Your task to perform on an android device: Search for panasonic triple a on bestbuy.com, select the first entry, add it to the cart, then select checkout. Image 0: 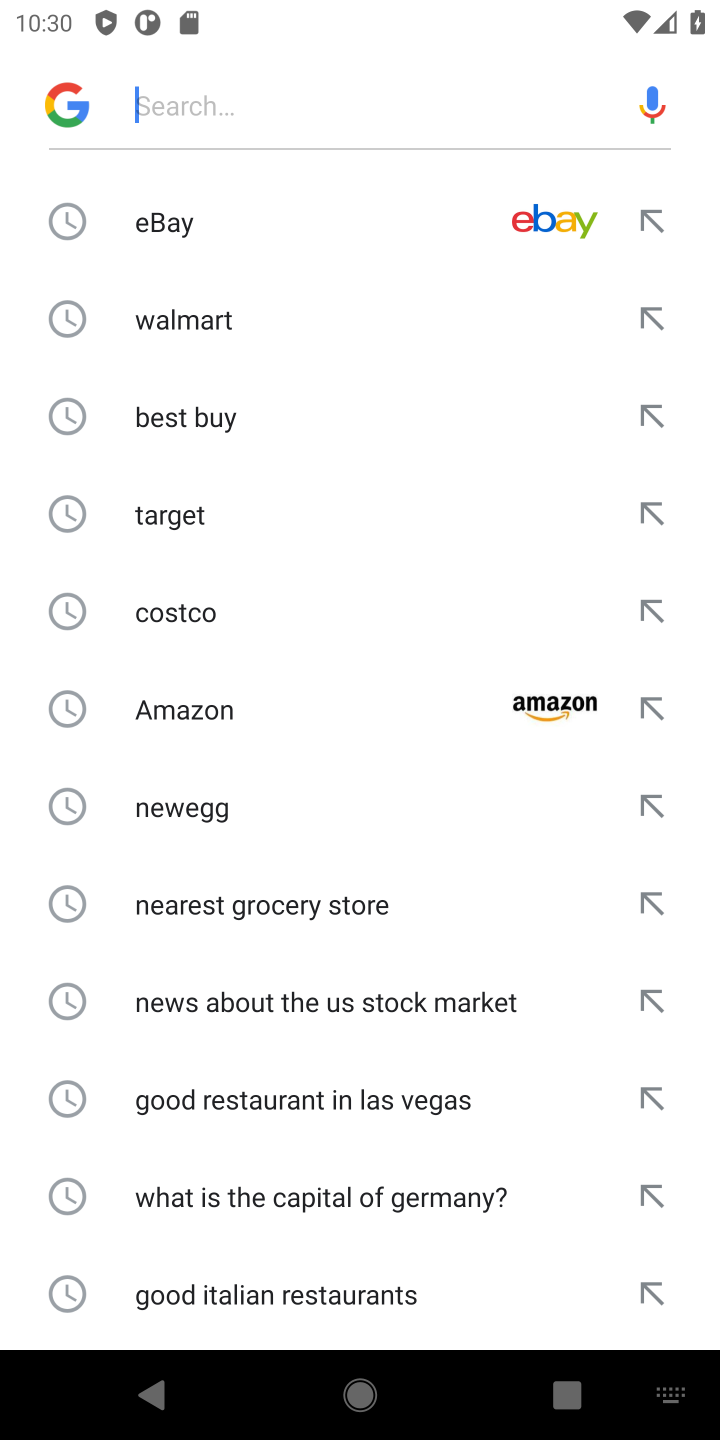
Step 0: press home button
Your task to perform on an android device: Search for panasonic triple a on bestbuy.com, select the first entry, add it to the cart, then select checkout. Image 1: 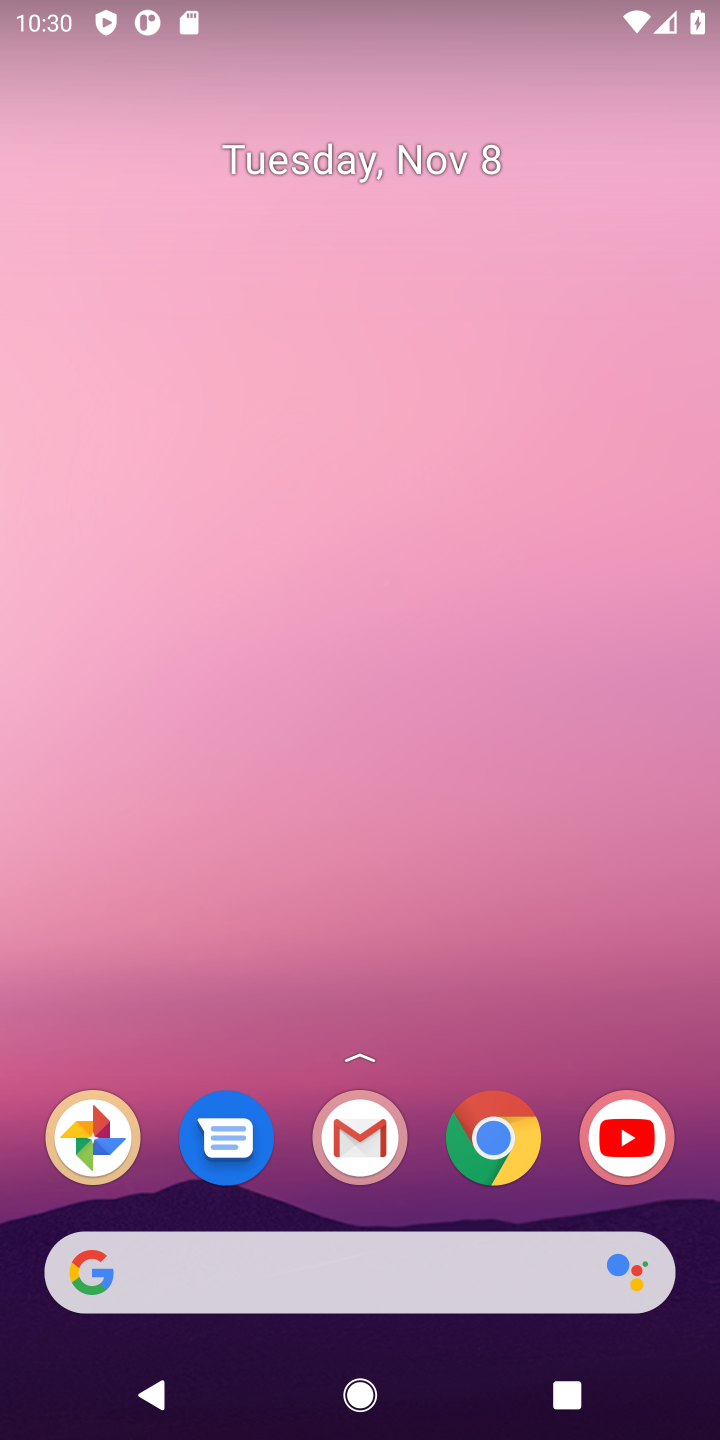
Step 1: click (509, 1142)
Your task to perform on an android device: Search for panasonic triple a on bestbuy.com, select the first entry, add it to the cart, then select checkout. Image 2: 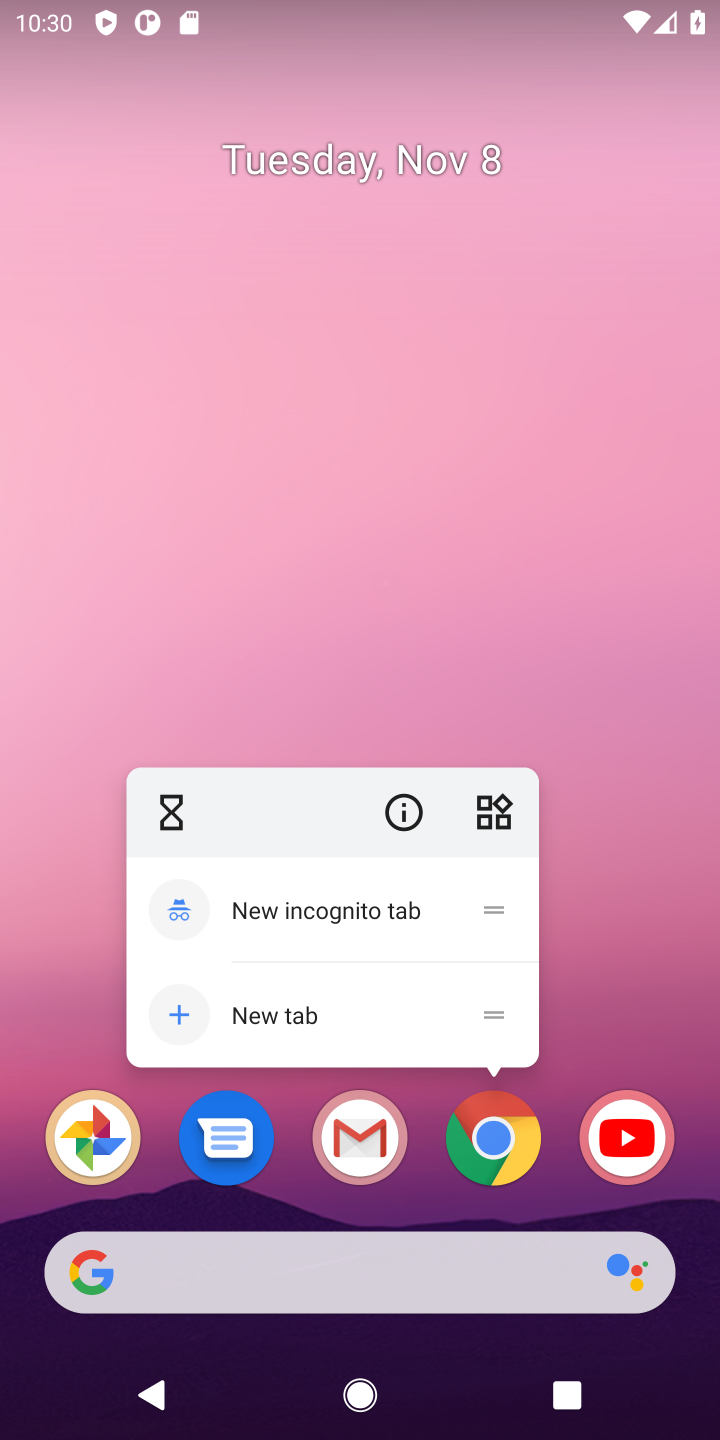
Step 2: click (479, 1128)
Your task to perform on an android device: Search for panasonic triple a on bestbuy.com, select the first entry, add it to the cart, then select checkout. Image 3: 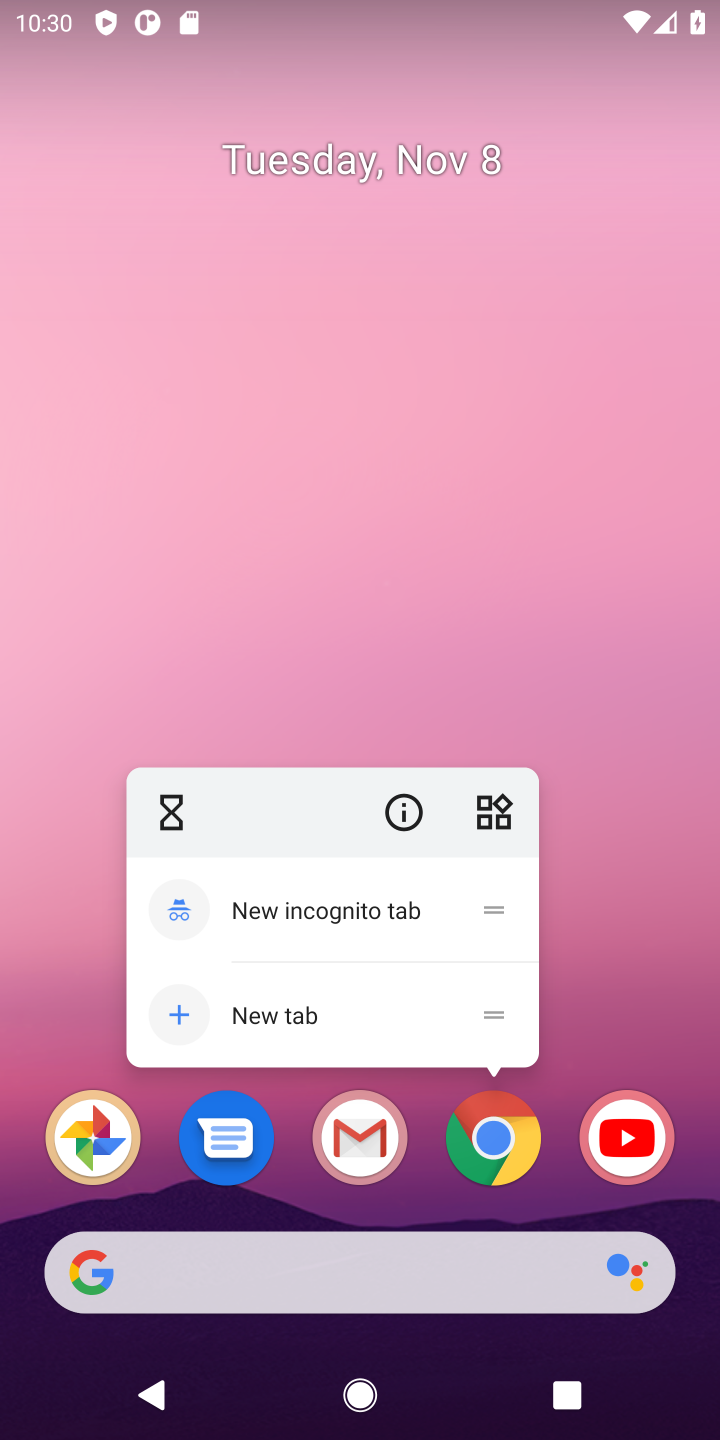
Step 3: click (475, 1128)
Your task to perform on an android device: Search for panasonic triple a on bestbuy.com, select the first entry, add it to the cart, then select checkout. Image 4: 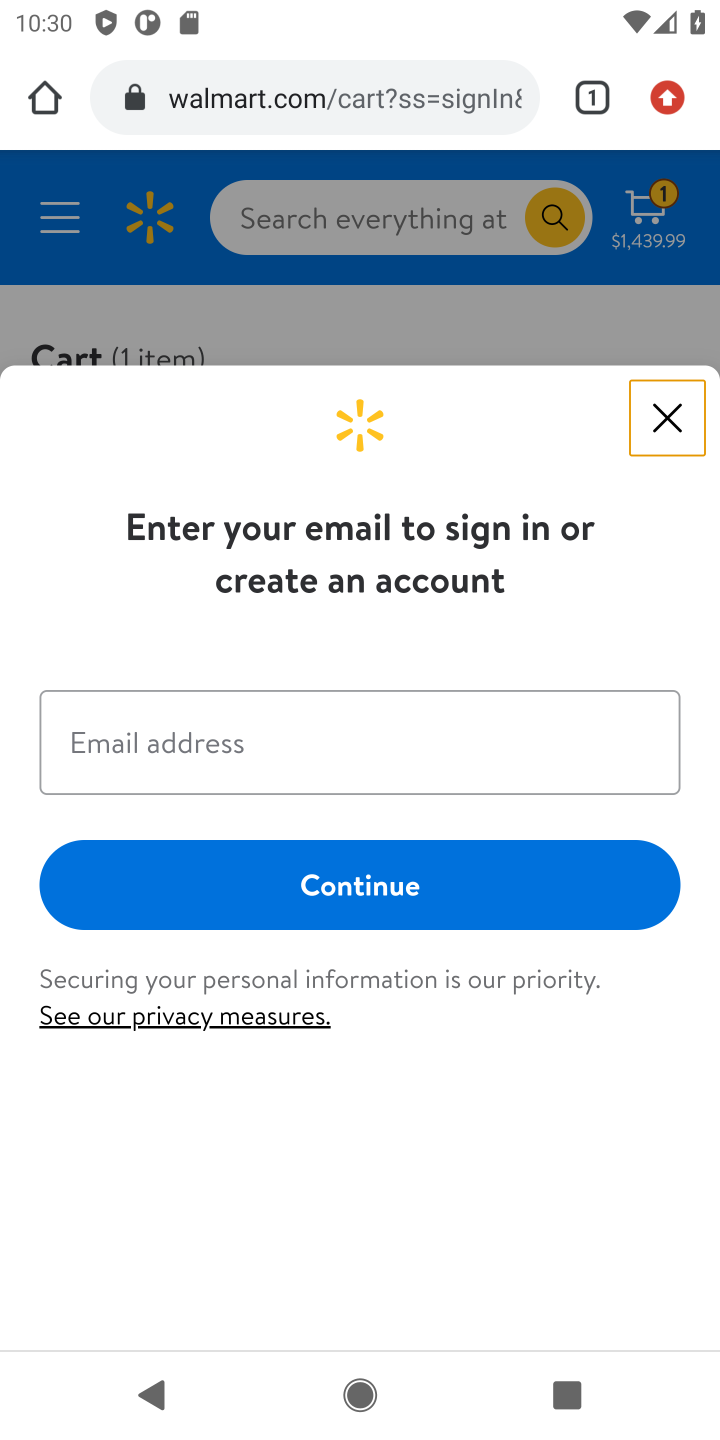
Step 4: click (453, 82)
Your task to perform on an android device: Search for panasonic triple a on bestbuy.com, select the first entry, add it to the cart, then select checkout. Image 5: 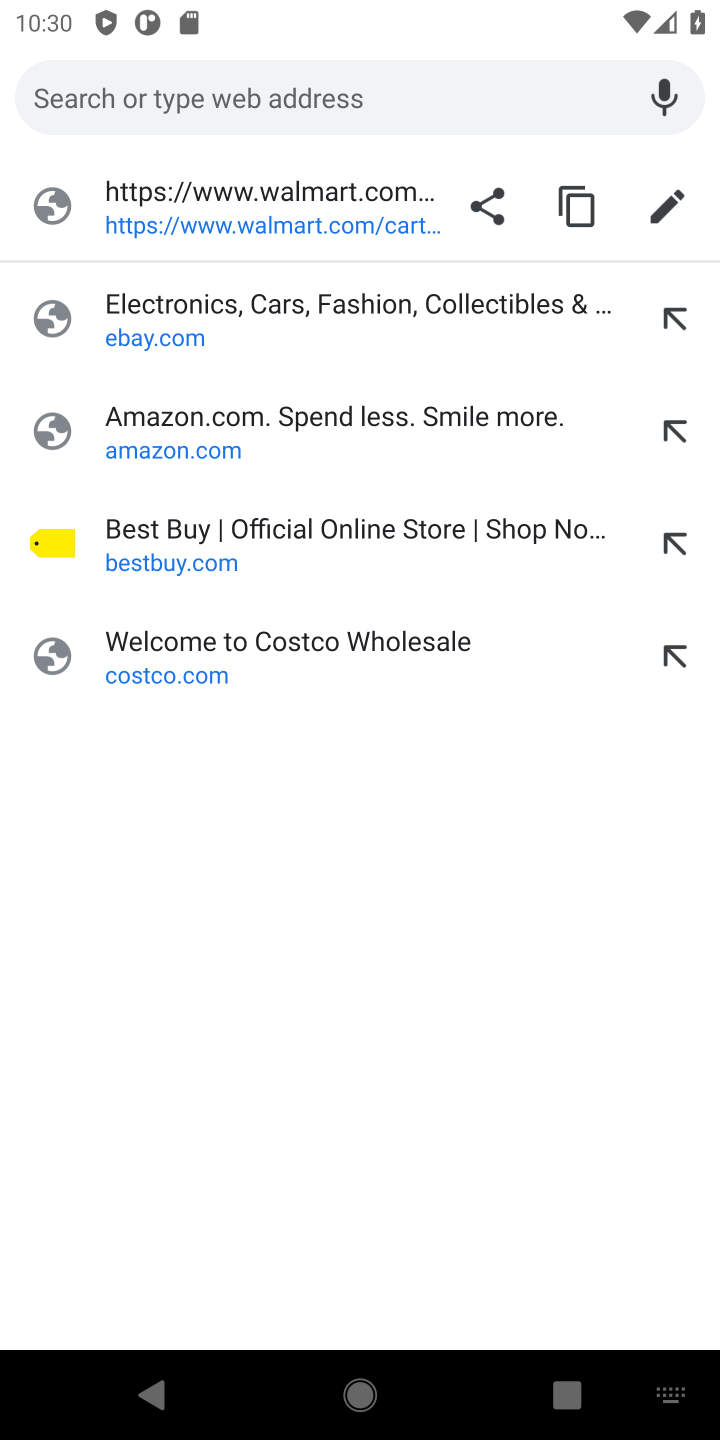
Step 5: click (186, 552)
Your task to perform on an android device: Search for panasonic triple a on bestbuy.com, select the first entry, add it to the cart, then select checkout. Image 6: 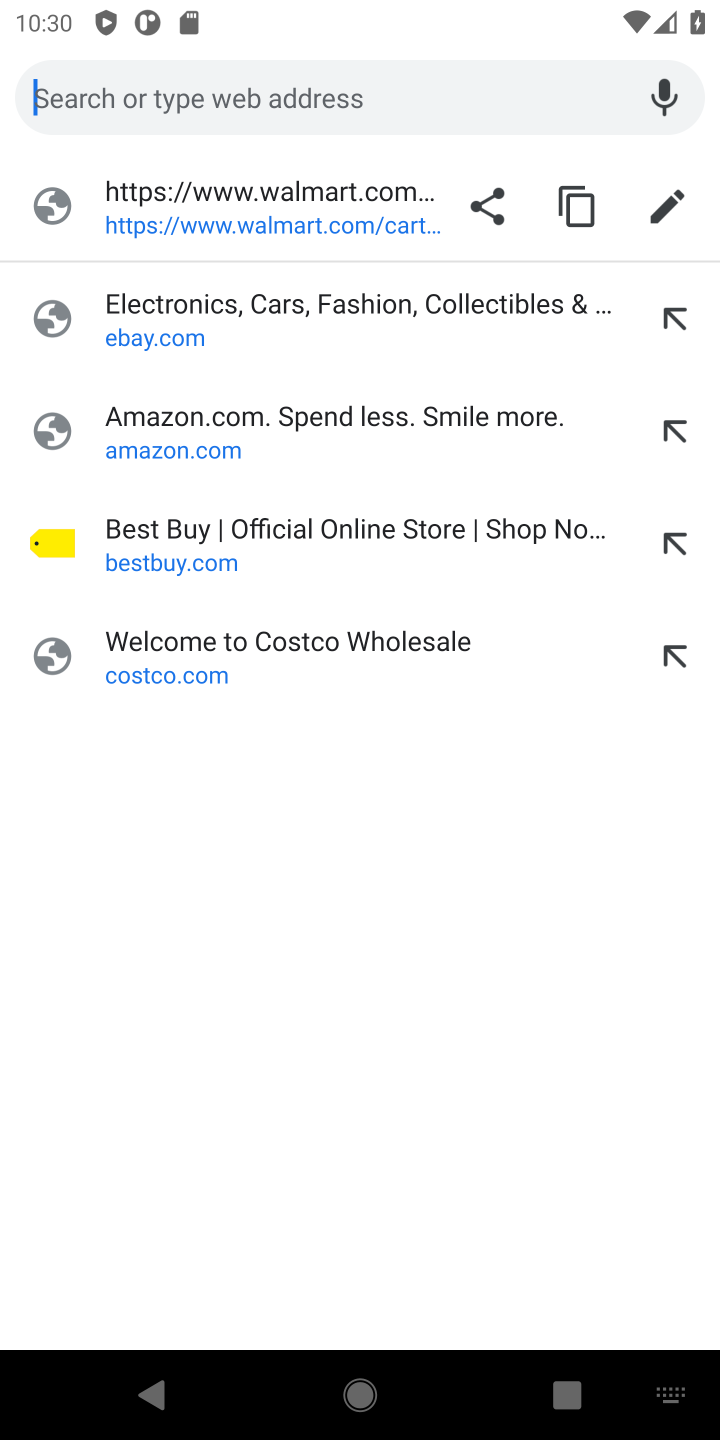
Step 6: click (141, 553)
Your task to perform on an android device: Search for panasonic triple a on bestbuy.com, select the first entry, add it to the cart, then select checkout. Image 7: 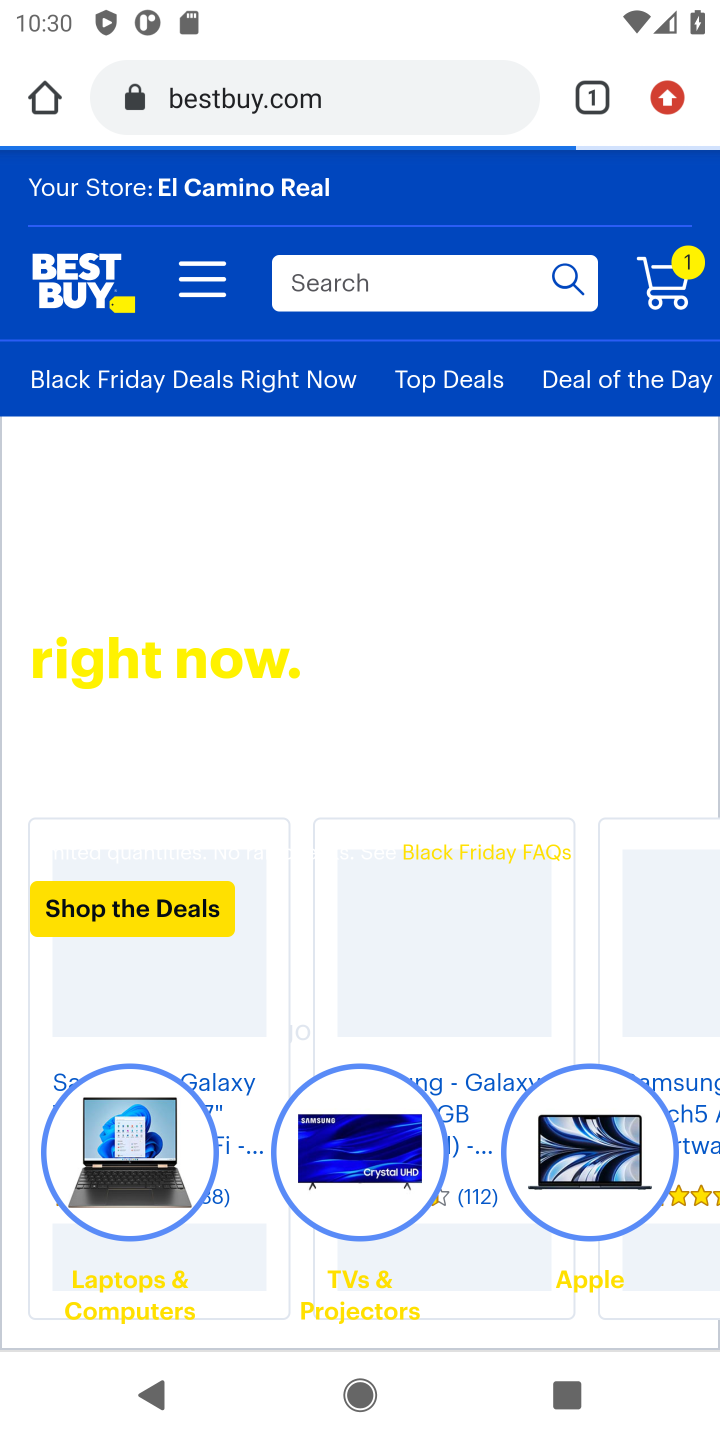
Step 7: click (437, 271)
Your task to perform on an android device: Search for panasonic triple a on bestbuy.com, select the first entry, add it to the cart, then select checkout. Image 8: 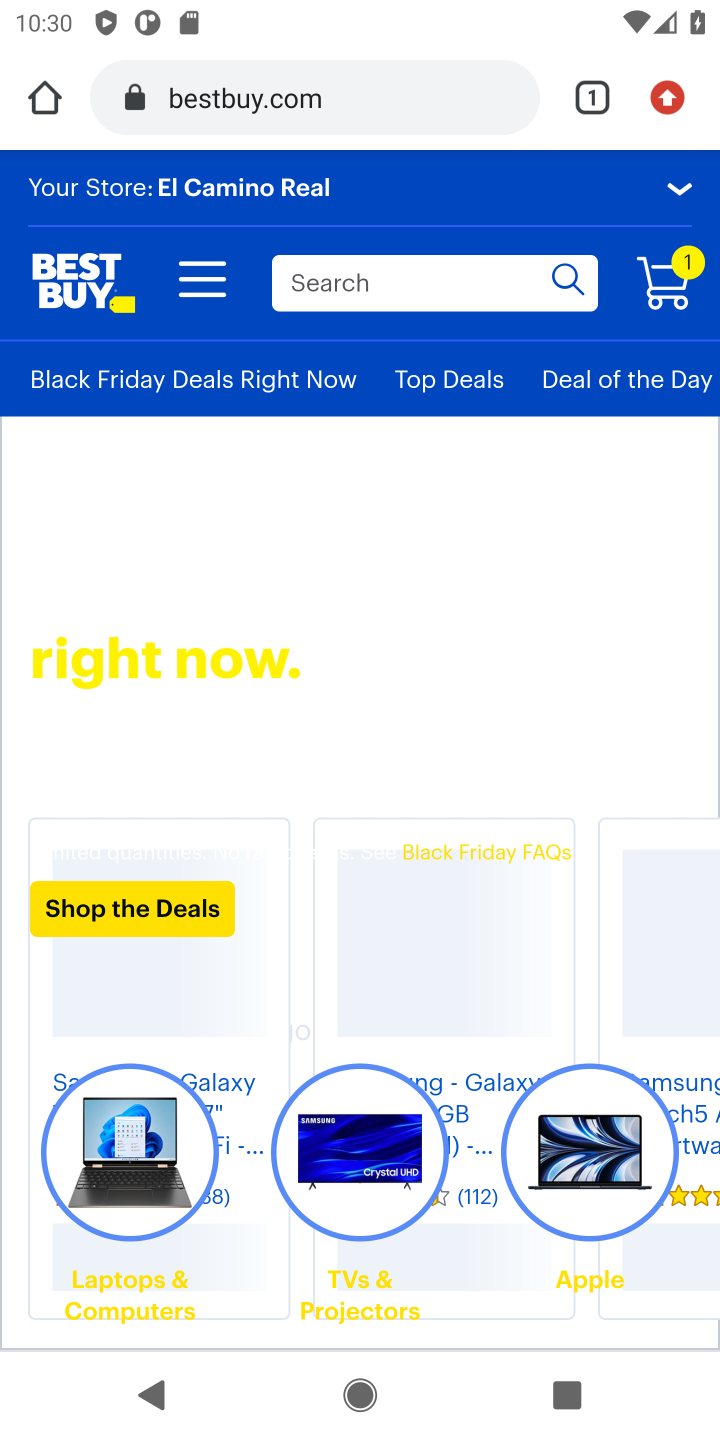
Step 8: click (429, 277)
Your task to perform on an android device: Search for panasonic triple a on bestbuy.com, select the first entry, add it to the cart, then select checkout. Image 9: 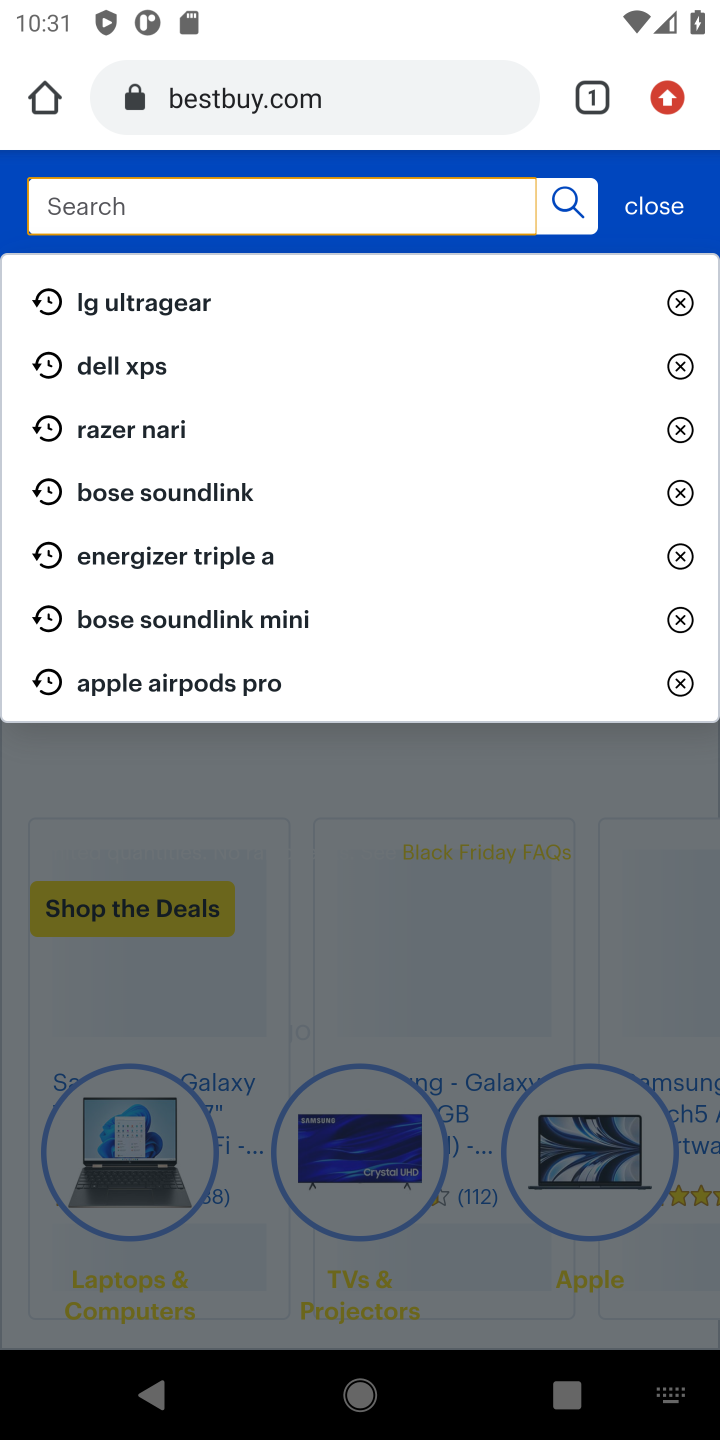
Step 9: type "panasonic triple a"
Your task to perform on an android device: Search for panasonic triple a on bestbuy.com, select the first entry, add it to the cart, then select checkout. Image 10: 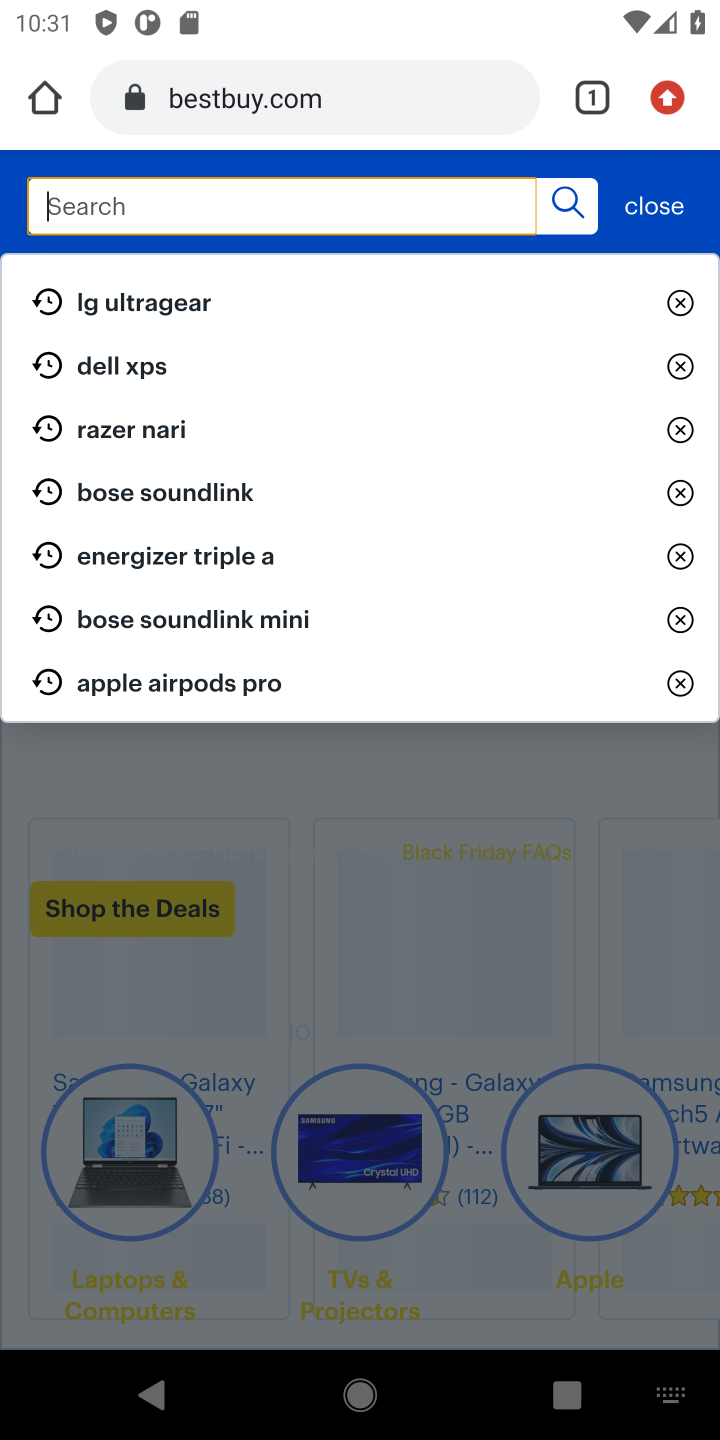
Step 10: press enter
Your task to perform on an android device: Search for panasonic triple a on bestbuy.com, select the first entry, add it to the cart, then select checkout. Image 11: 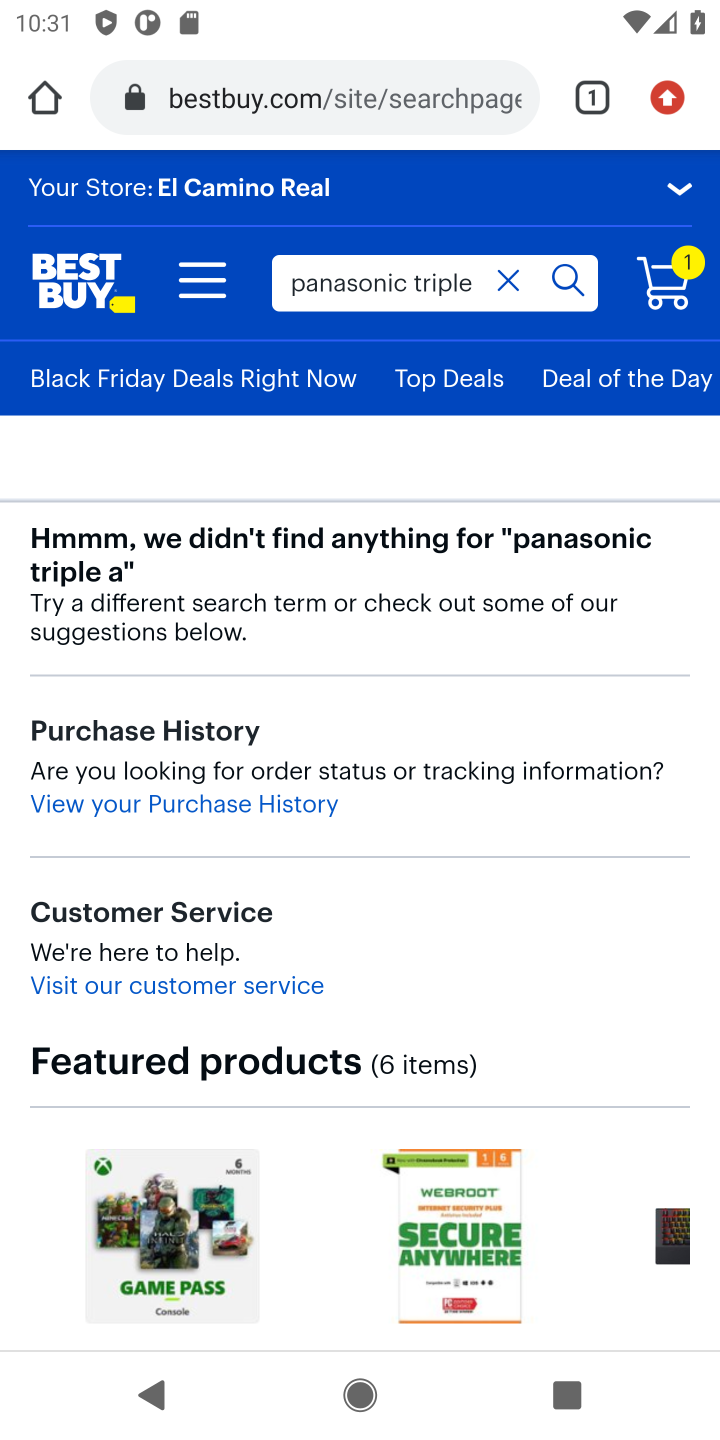
Step 11: drag from (307, 1228) to (416, 1322)
Your task to perform on an android device: Search for panasonic triple a on bestbuy.com, select the first entry, add it to the cart, then select checkout. Image 12: 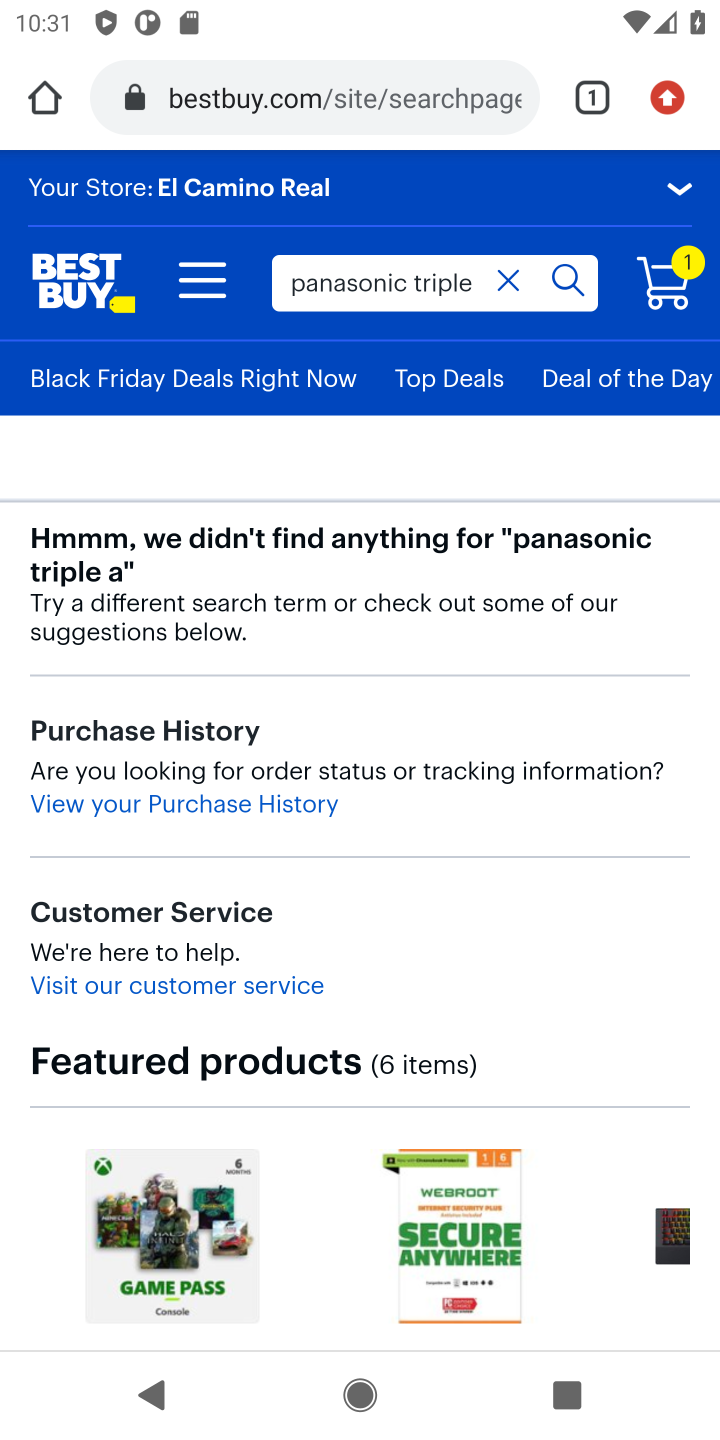
Step 12: click (461, 273)
Your task to perform on an android device: Search for panasonic triple a on bestbuy.com, select the first entry, add it to the cart, then select checkout. Image 13: 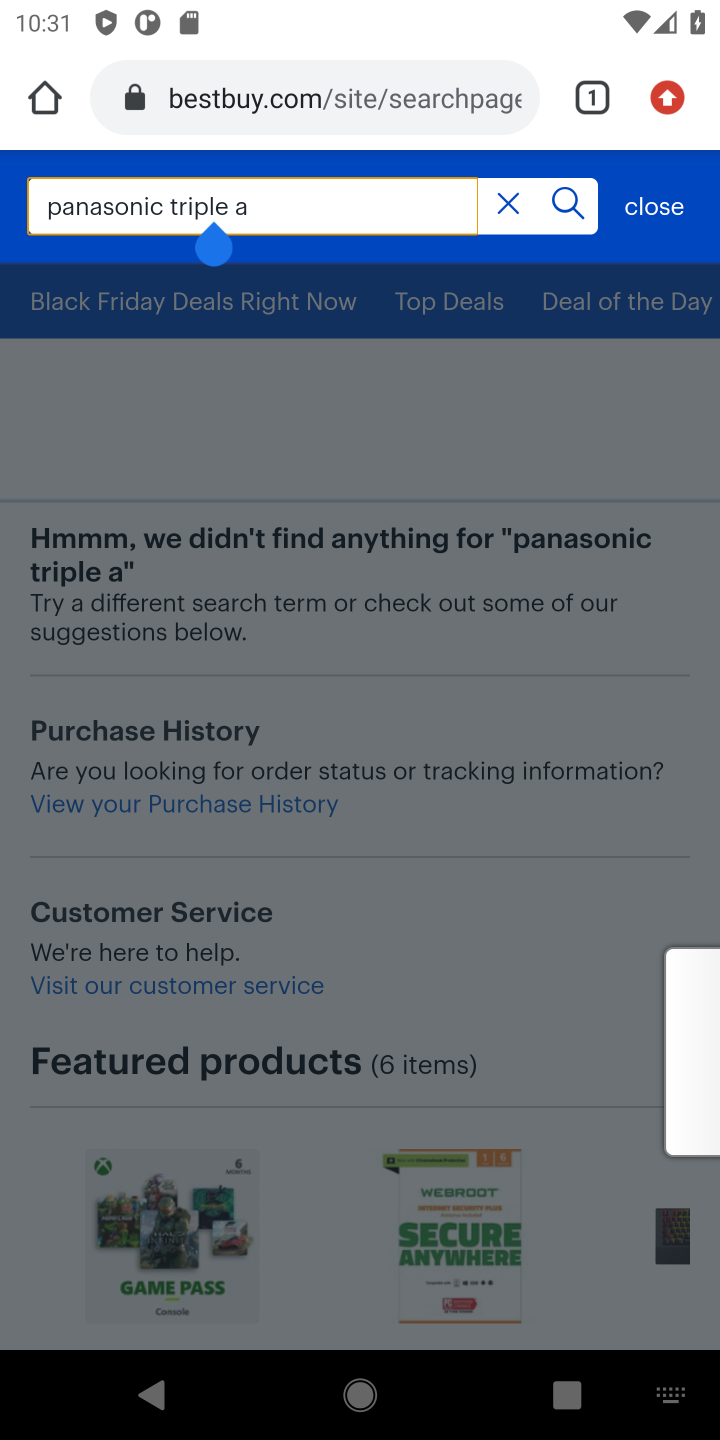
Step 13: click (564, 189)
Your task to perform on an android device: Search for panasonic triple a on bestbuy.com, select the first entry, add it to the cart, then select checkout. Image 14: 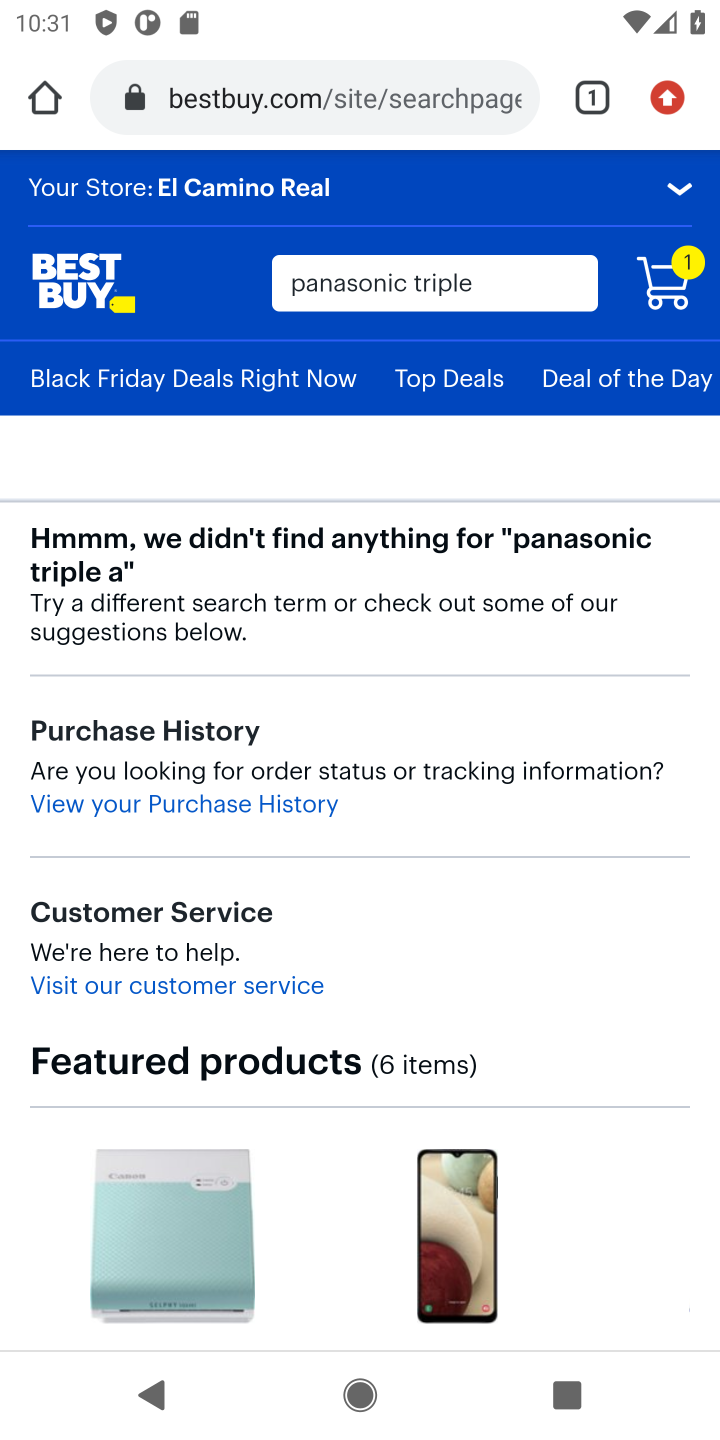
Step 14: task complete